Your task to perform on an android device: turn off picture-in-picture Image 0: 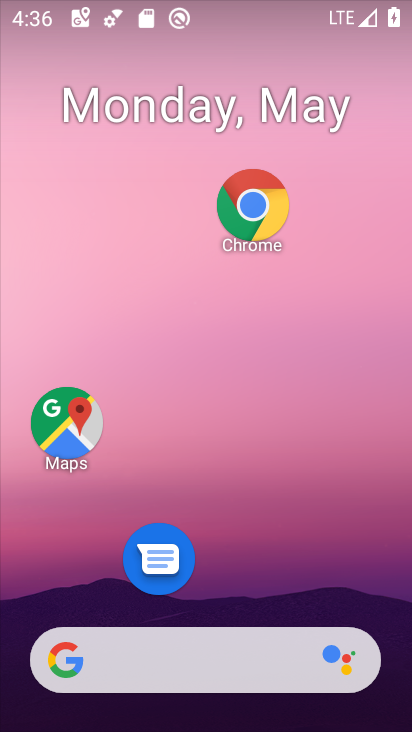
Step 0: drag from (226, 595) to (281, 225)
Your task to perform on an android device: turn off picture-in-picture Image 1: 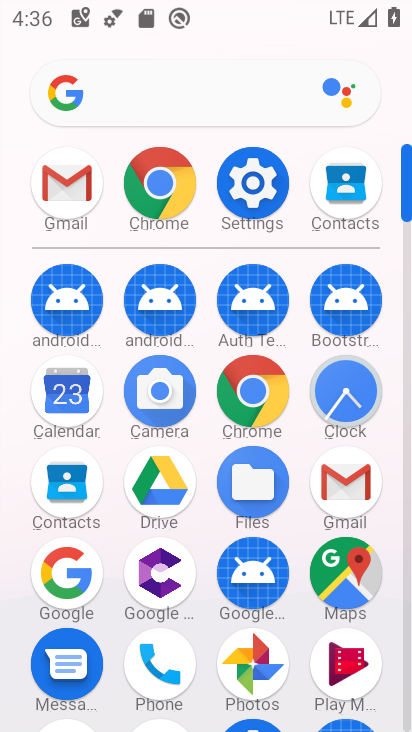
Step 1: click (238, 182)
Your task to perform on an android device: turn off picture-in-picture Image 2: 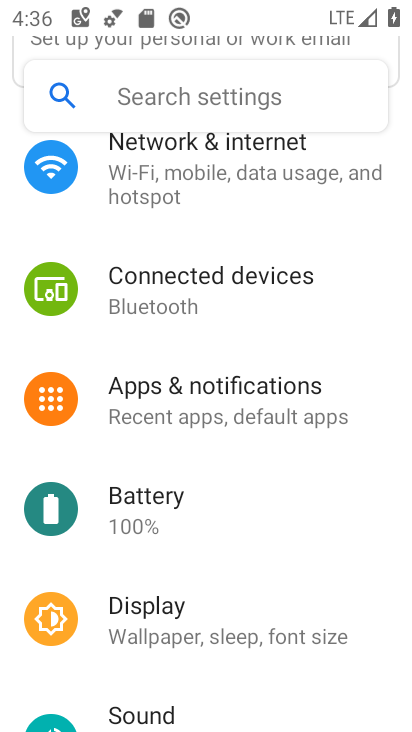
Step 2: click (191, 397)
Your task to perform on an android device: turn off picture-in-picture Image 3: 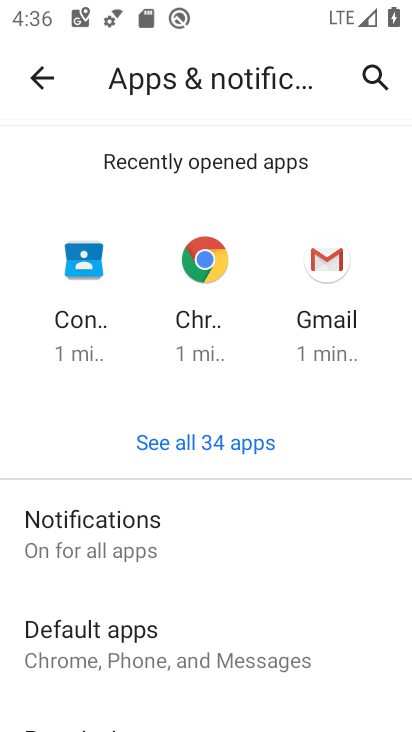
Step 3: drag from (131, 666) to (174, 421)
Your task to perform on an android device: turn off picture-in-picture Image 4: 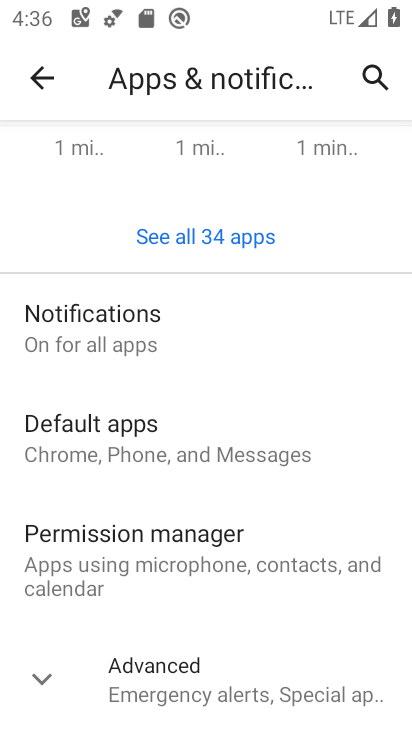
Step 4: click (132, 678)
Your task to perform on an android device: turn off picture-in-picture Image 5: 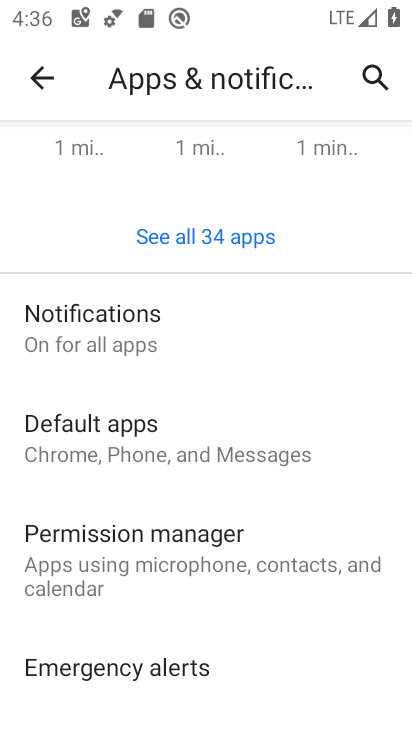
Step 5: drag from (136, 593) to (169, 397)
Your task to perform on an android device: turn off picture-in-picture Image 6: 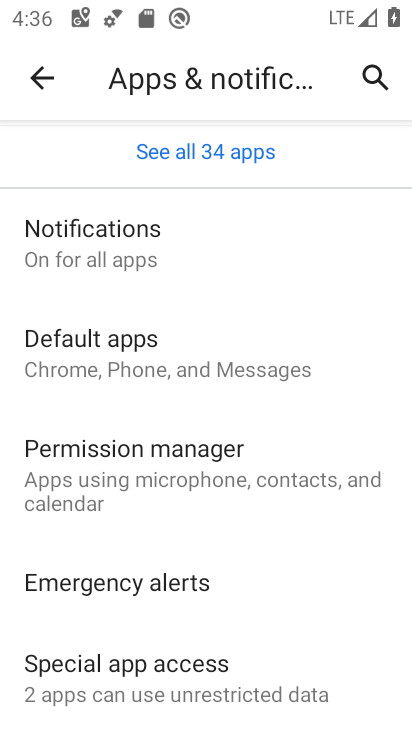
Step 6: drag from (99, 564) to (146, 408)
Your task to perform on an android device: turn off picture-in-picture Image 7: 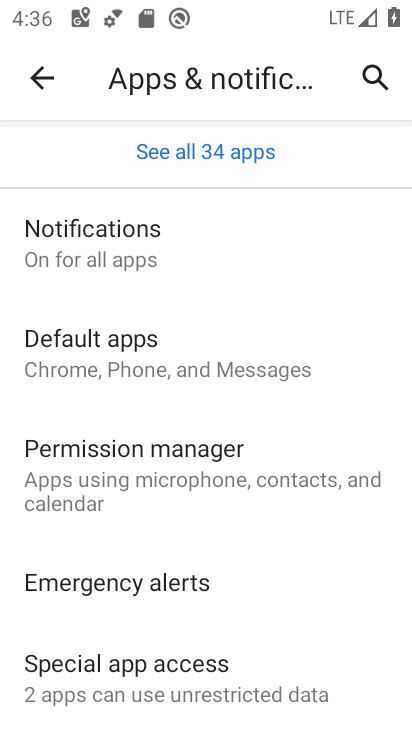
Step 7: click (110, 695)
Your task to perform on an android device: turn off picture-in-picture Image 8: 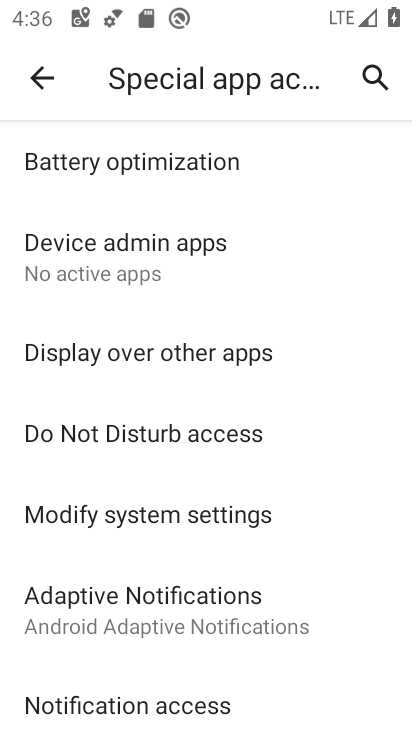
Step 8: drag from (143, 643) to (209, 385)
Your task to perform on an android device: turn off picture-in-picture Image 9: 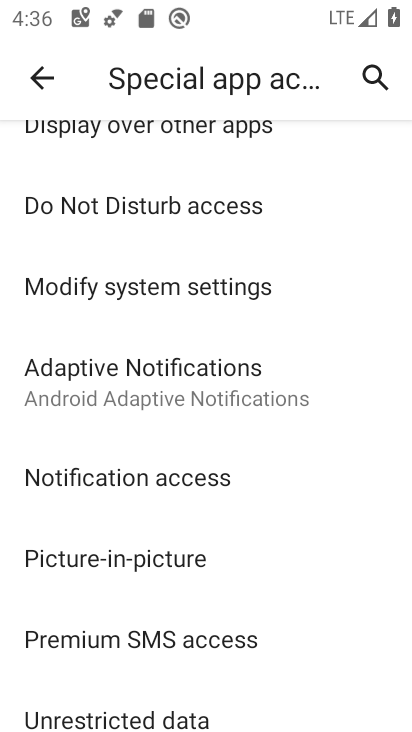
Step 9: click (164, 577)
Your task to perform on an android device: turn off picture-in-picture Image 10: 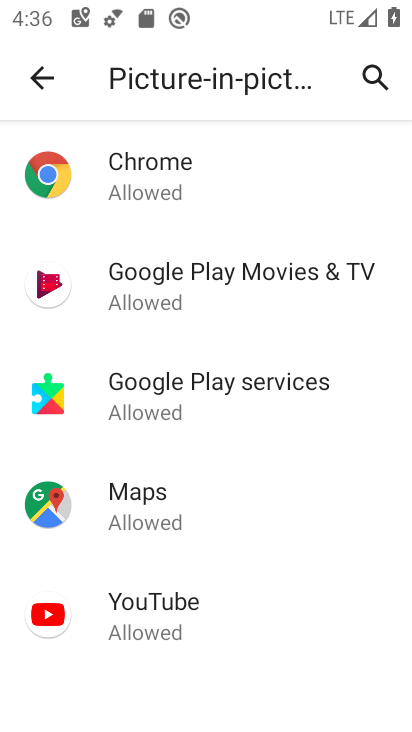
Step 10: click (162, 198)
Your task to perform on an android device: turn off picture-in-picture Image 11: 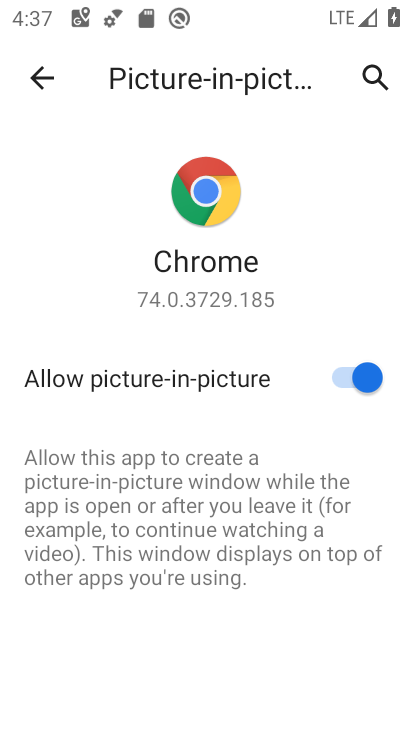
Step 11: click (345, 387)
Your task to perform on an android device: turn off picture-in-picture Image 12: 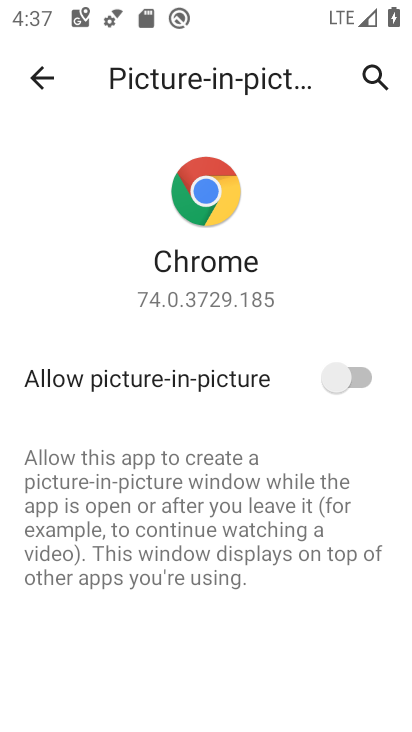
Step 12: task complete